Your task to perform on an android device: delete location history Image 0: 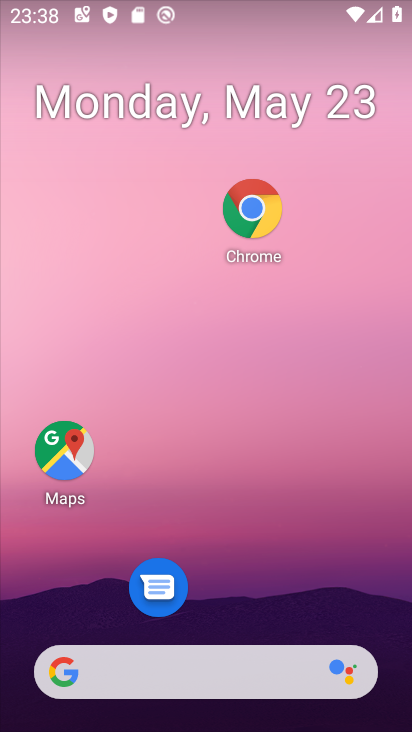
Step 0: drag from (259, 729) to (159, 247)
Your task to perform on an android device: delete location history Image 1: 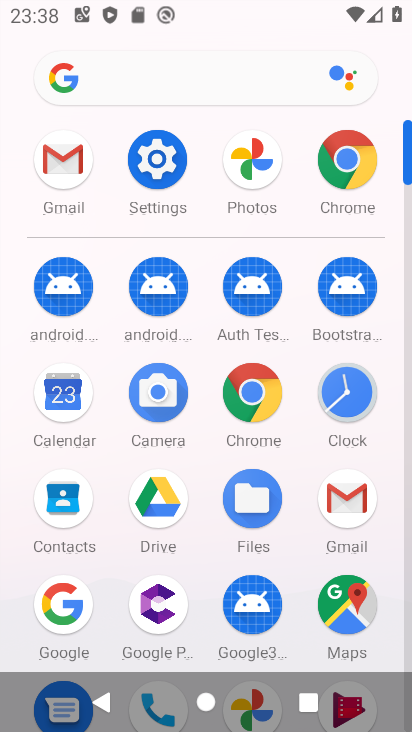
Step 1: click (162, 187)
Your task to perform on an android device: delete location history Image 2: 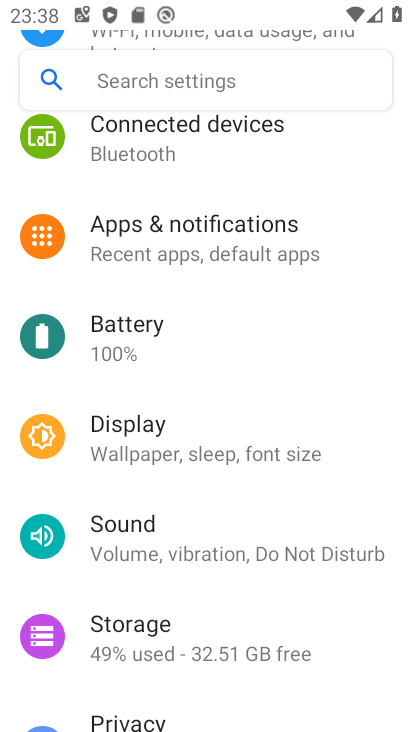
Step 2: drag from (187, 609) to (171, 264)
Your task to perform on an android device: delete location history Image 3: 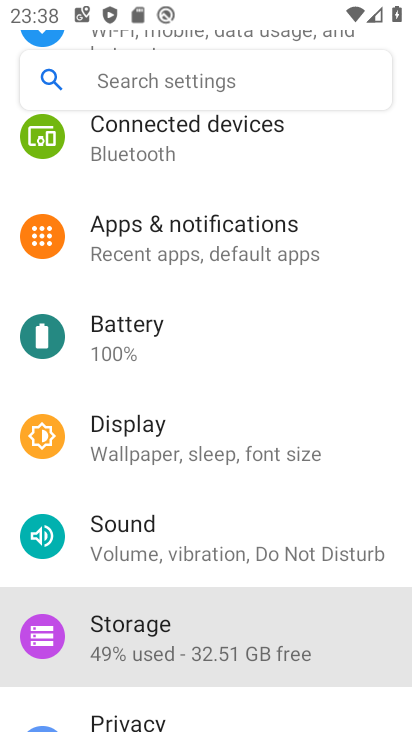
Step 3: drag from (191, 468) to (191, 112)
Your task to perform on an android device: delete location history Image 4: 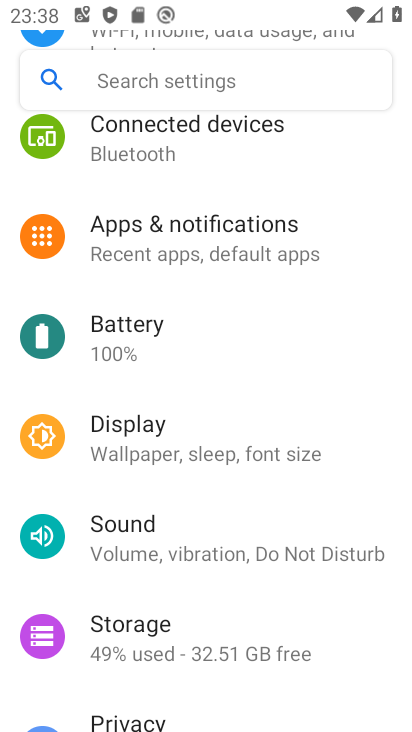
Step 4: drag from (197, 558) to (198, 120)
Your task to perform on an android device: delete location history Image 5: 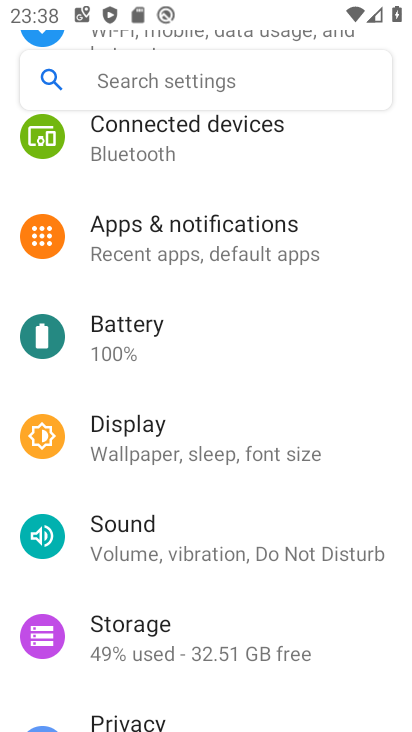
Step 5: drag from (156, 628) to (167, 251)
Your task to perform on an android device: delete location history Image 6: 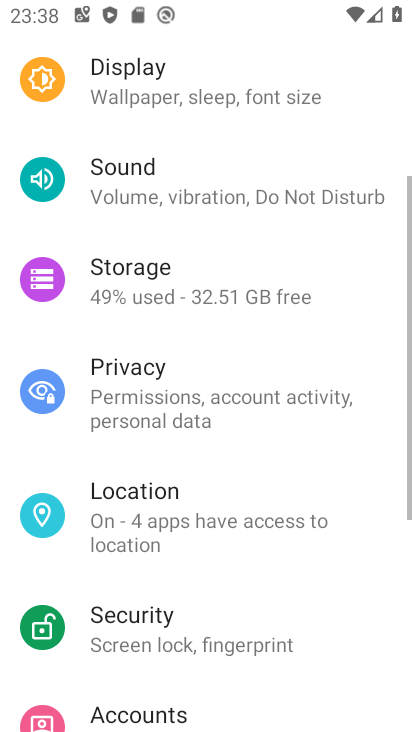
Step 6: drag from (177, 555) to (235, 257)
Your task to perform on an android device: delete location history Image 7: 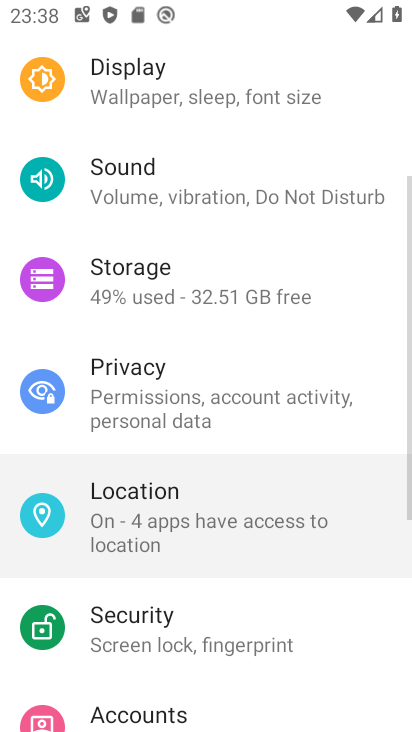
Step 7: drag from (282, 576) to (321, 156)
Your task to perform on an android device: delete location history Image 8: 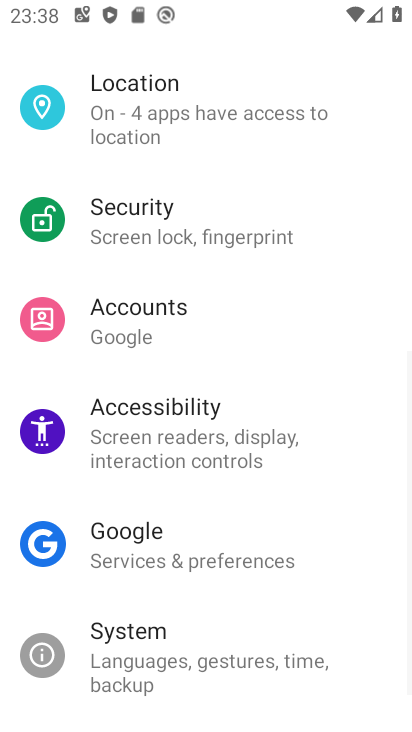
Step 8: click (167, 508)
Your task to perform on an android device: delete location history Image 9: 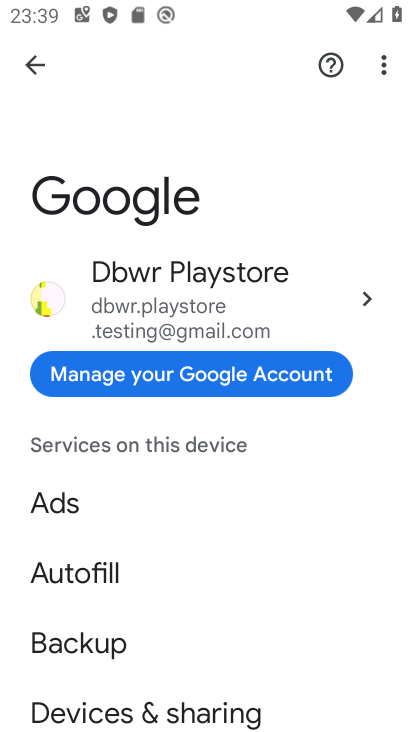
Step 9: press back button
Your task to perform on an android device: delete location history Image 10: 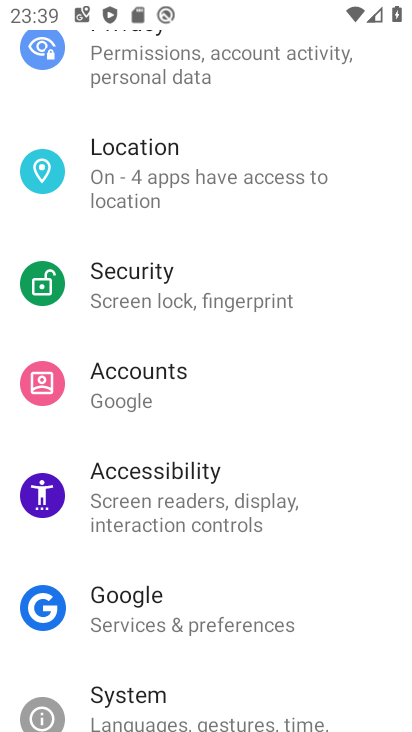
Step 10: click (187, 180)
Your task to perform on an android device: delete location history Image 11: 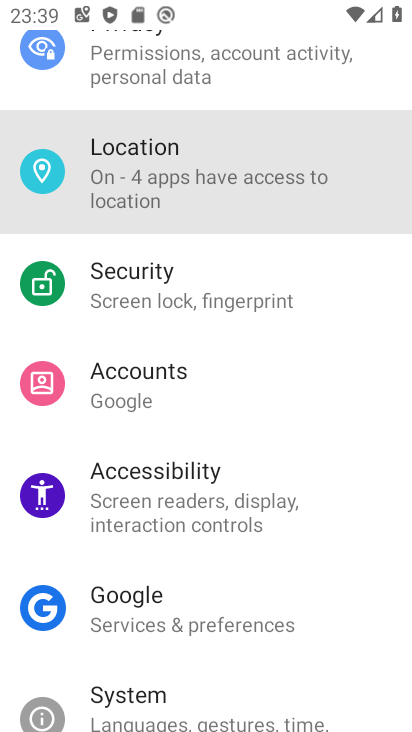
Step 11: click (159, 181)
Your task to perform on an android device: delete location history Image 12: 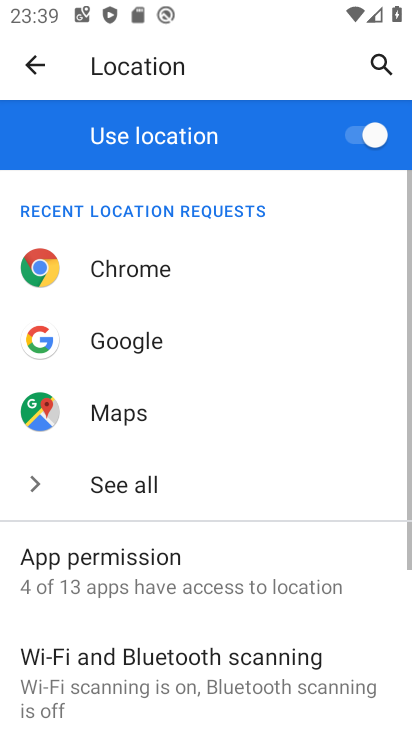
Step 12: drag from (133, 518) to (119, 250)
Your task to perform on an android device: delete location history Image 13: 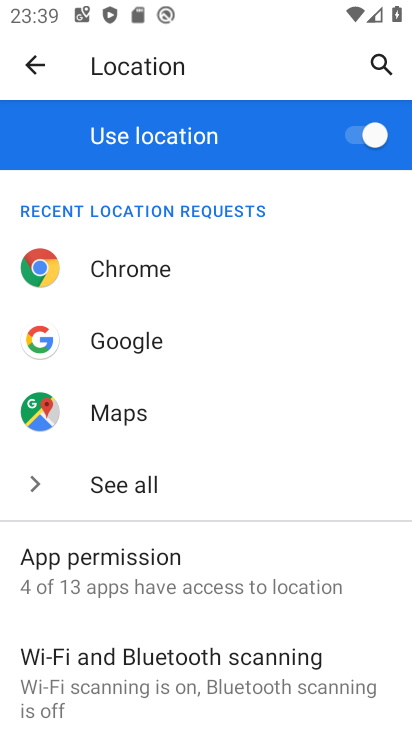
Step 13: click (136, 569)
Your task to perform on an android device: delete location history Image 14: 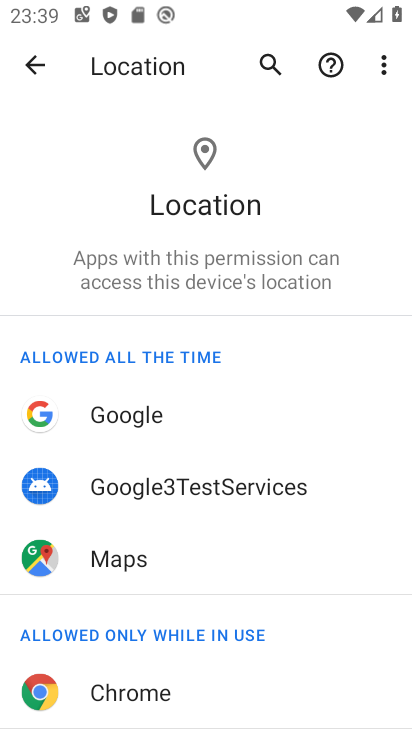
Step 14: drag from (199, 485) to (211, 160)
Your task to perform on an android device: delete location history Image 15: 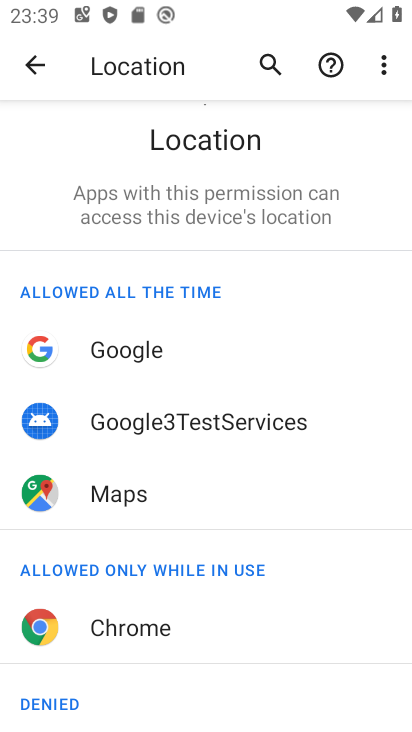
Step 15: click (25, 60)
Your task to perform on an android device: delete location history Image 16: 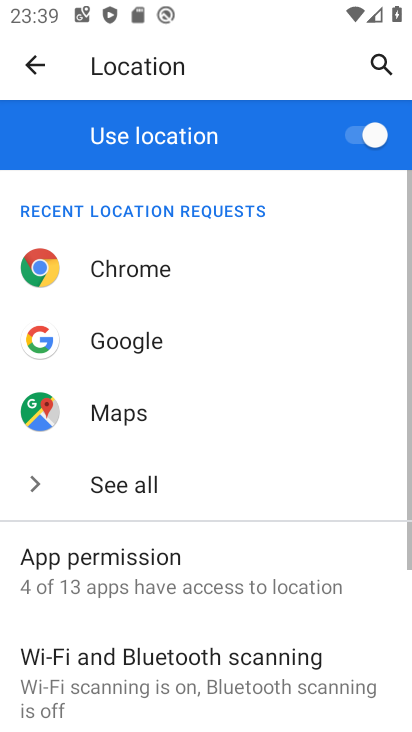
Step 16: drag from (133, 649) to (140, 214)
Your task to perform on an android device: delete location history Image 17: 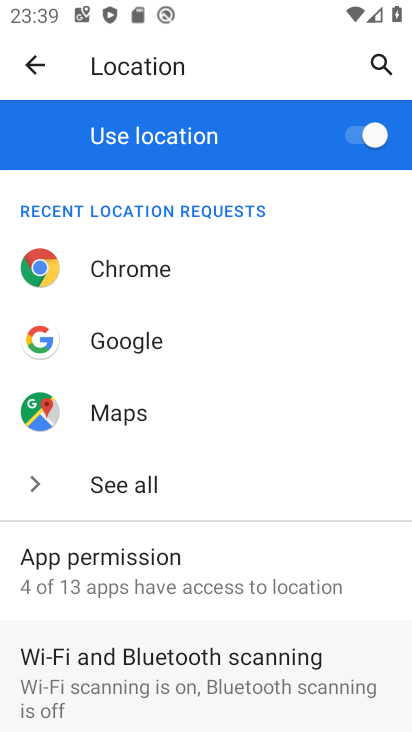
Step 17: drag from (181, 550) to (188, 236)
Your task to perform on an android device: delete location history Image 18: 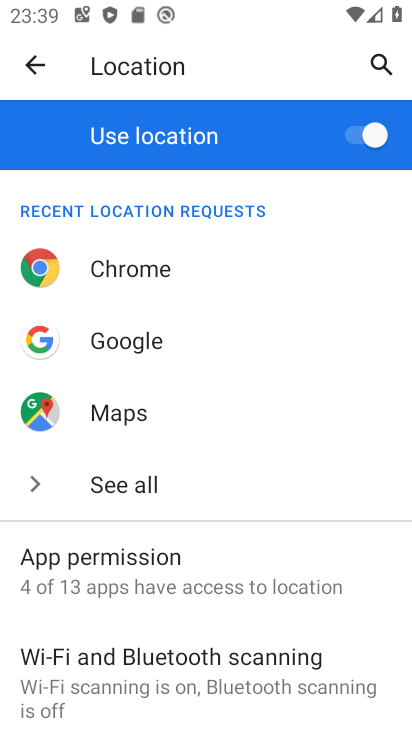
Step 18: drag from (243, 648) to (242, 211)
Your task to perform on an android device: delete location history Image 19: 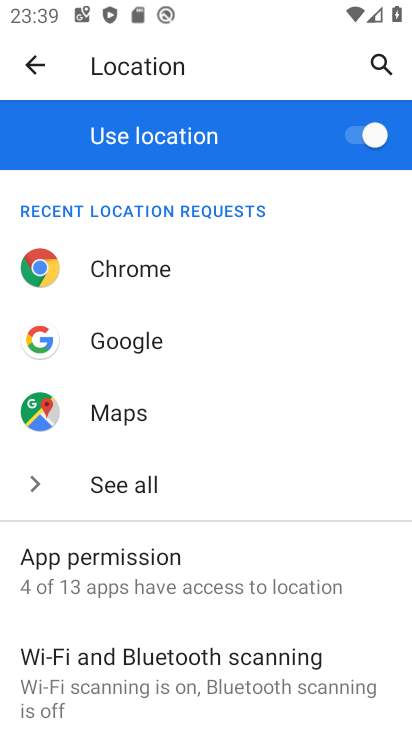
Step 19: drag from (222, 590) to (223, 178)
Your task to perform on an android device: delete location history Image 20: 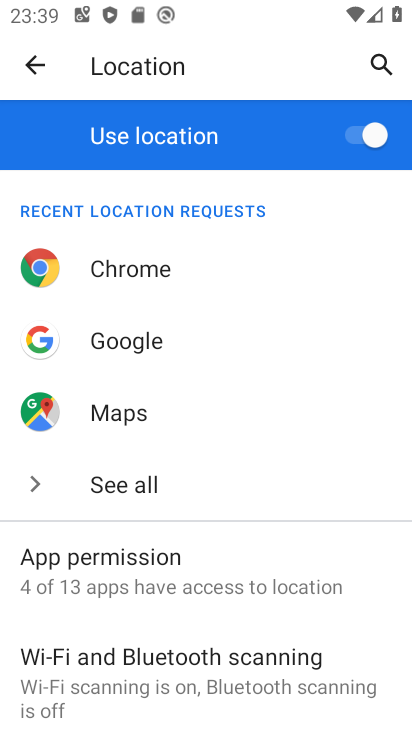
Step 20: drag from (188, 669) to (213, 264)
Your task to perform on an android device: delete location history Image 21: 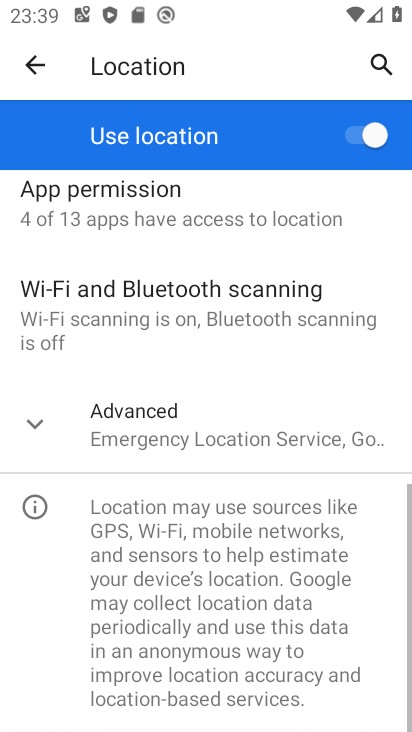
Step 21: drag from (225, 701) to (242, 156)
Your task to perform on an android device: delete location history Image 22: 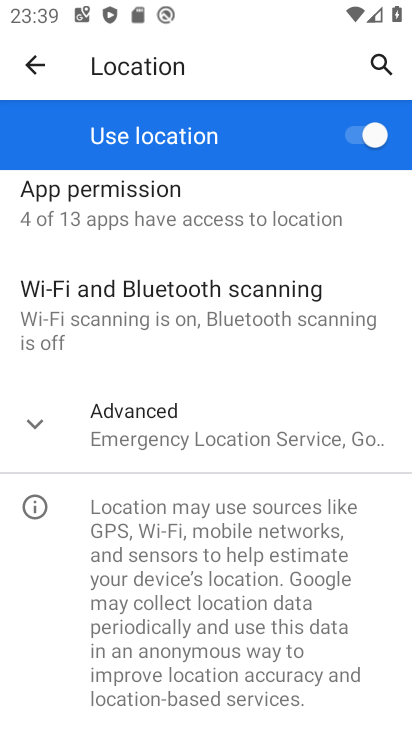
Step 22: click (146, 436)
Your task to perform on an android device: delete location history Image 23: 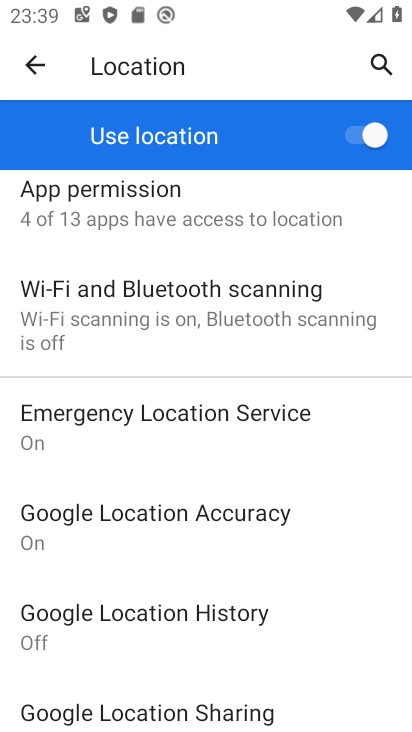
Step 23: click (92, 610)
Your task to perform on an android device: delete location history Image 24: 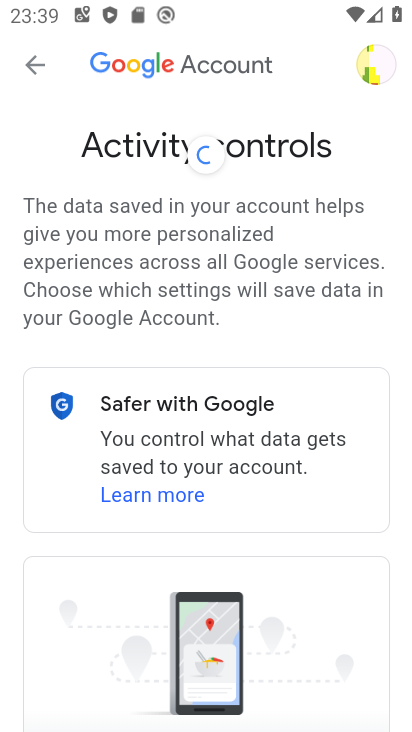
Step 24: drag from (253, 597) to (224, 187)
Your task to perform on an android device: delete location history Image 25: 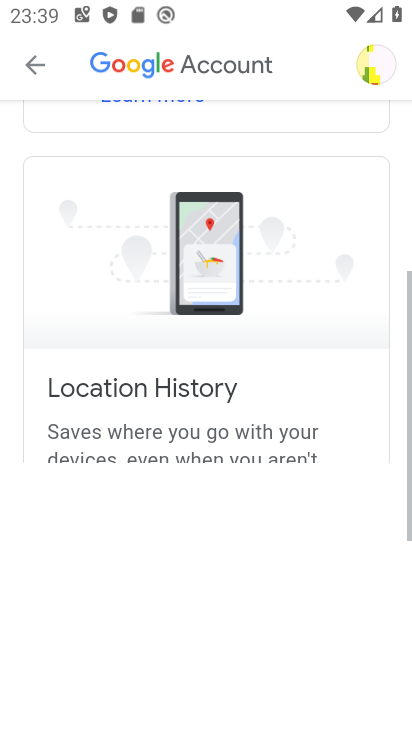
Step 25: drag from (259, 531) to (209, 294)
Your task to perform on an android device: delete location history Image 26: 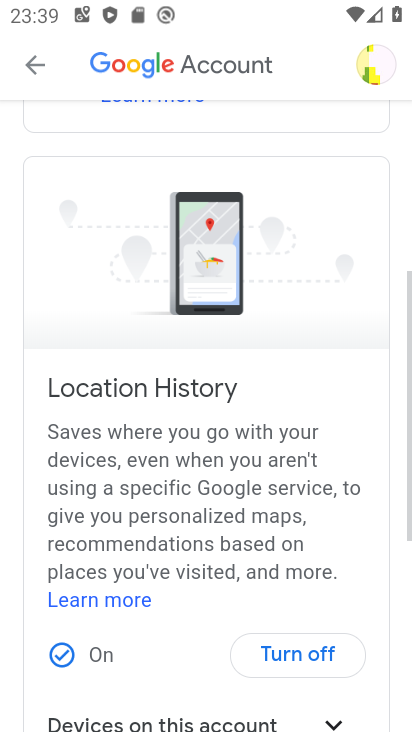
Step 26: drag from (209, 533) to (252, 142)
Your task to perform on an android device: delete location history Image 27: 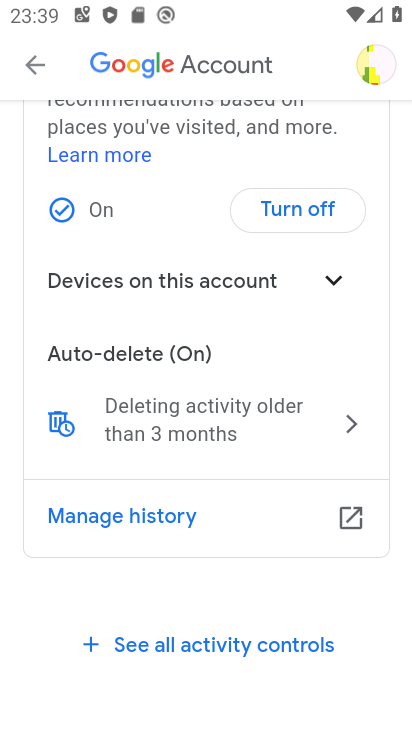
Step 27: click (56, 415)
Your task to perform on an android device: delete location history Image 28: 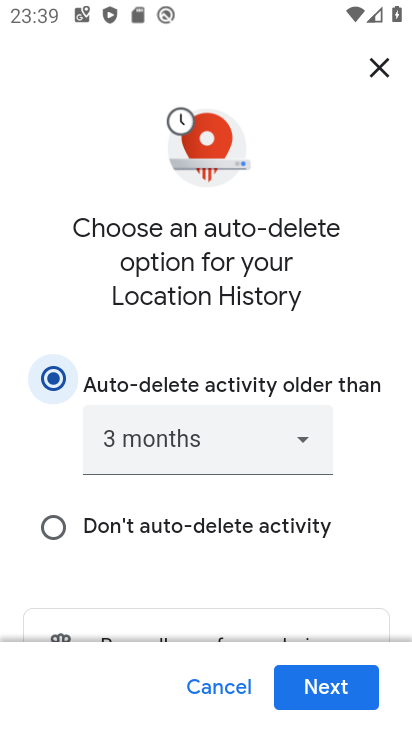
Step 28: click (309, 681)
Your task to perform on an android device: delete location history Image 29: 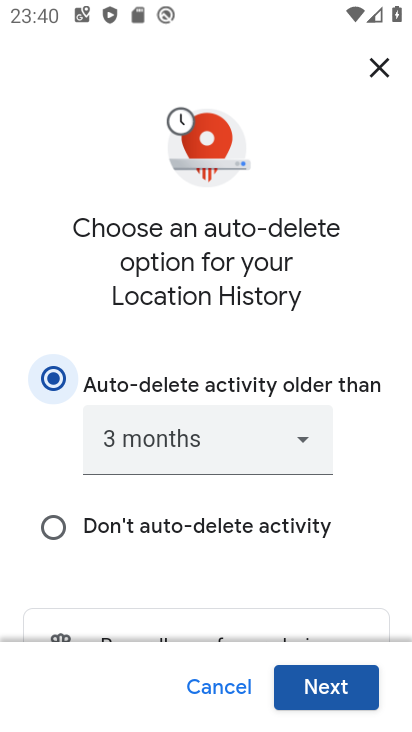
Step 29: click (314, 679)
Your task to perform on an android device: delete location history Image 30: 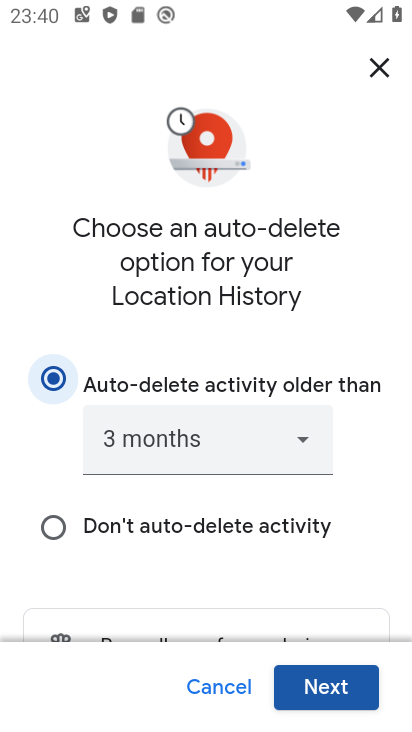
Step 30: click (314, 679)
Your task to perform on an android device: delete location history Image 31: 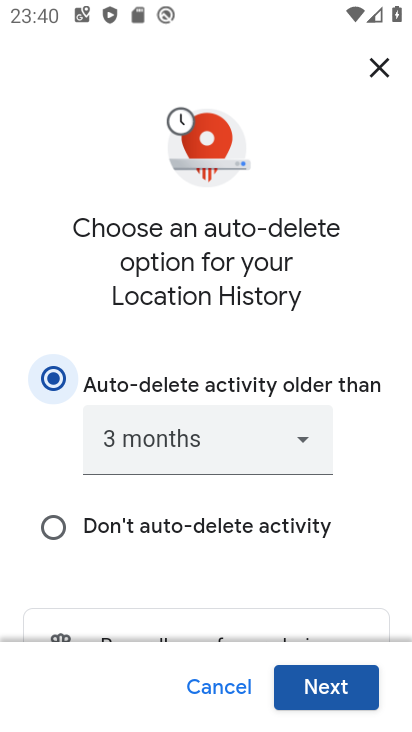
Step 31: click (315, 678)
Your task to perform on an android device: delete location history Image 32: 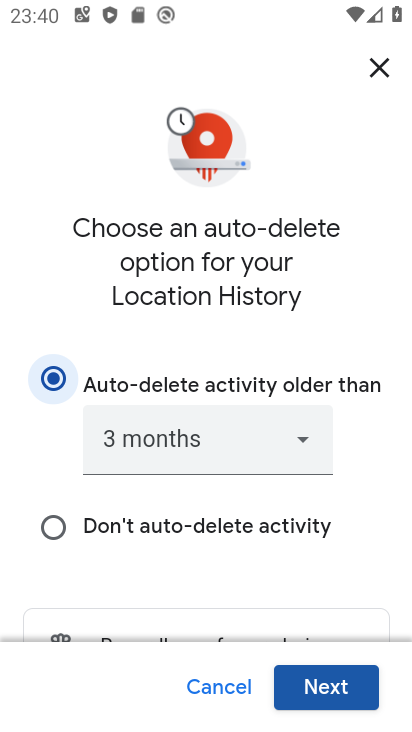
Step 32: click (315, 678)
Your task to perform on an android device: delete location history Image 33: 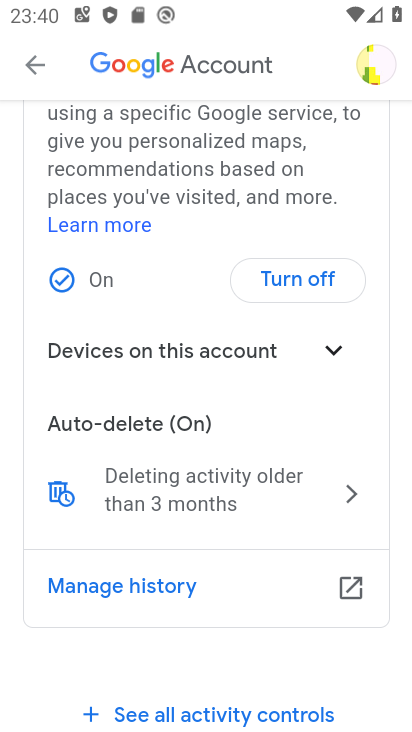
Step 33: task complete